Your task to perform on an android device: Open Google Chrome and click the shortcut for Amazon.com Image 0: 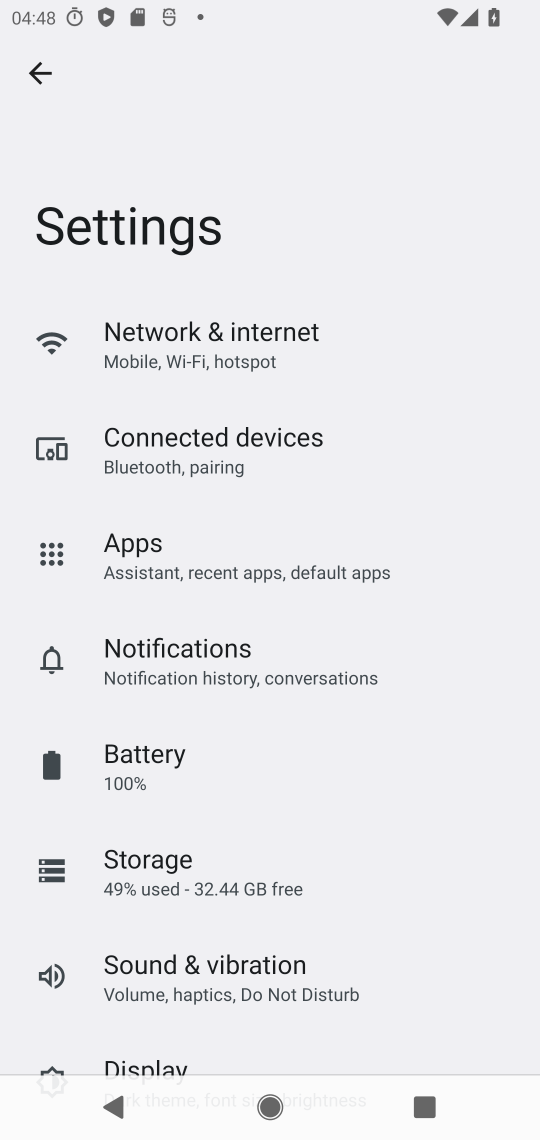
Step 0: press home button
Your task to perform on an android device: Open Google Chrome and click the shortcut for Amazon.com Image 1: 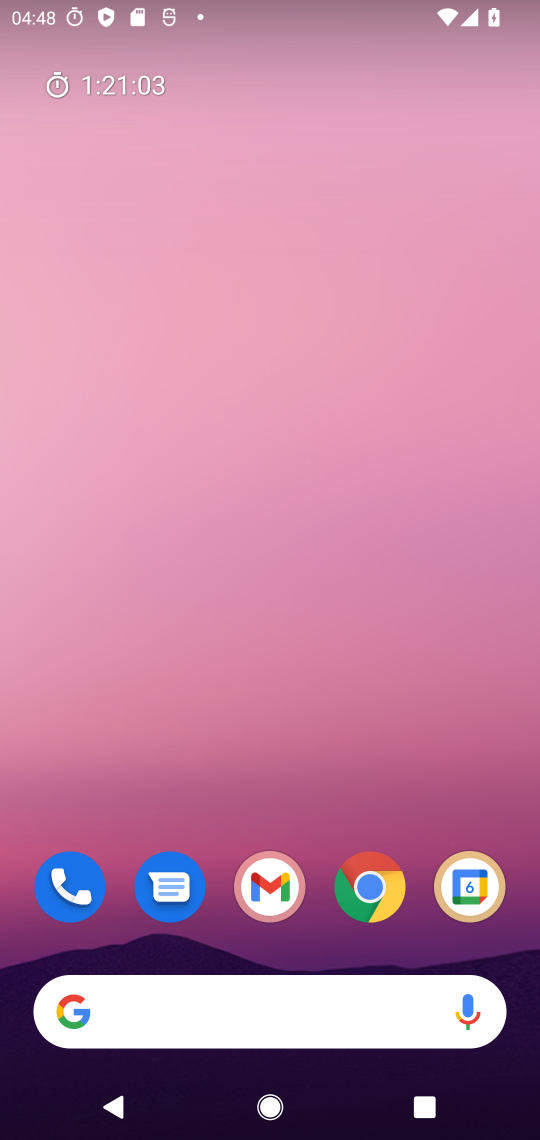
Step 1: drag from (446, 792) to (484, 324)
Your task to perform on an android device: Open Google Chrome and click the shortcut for Amazon.com Image 2: 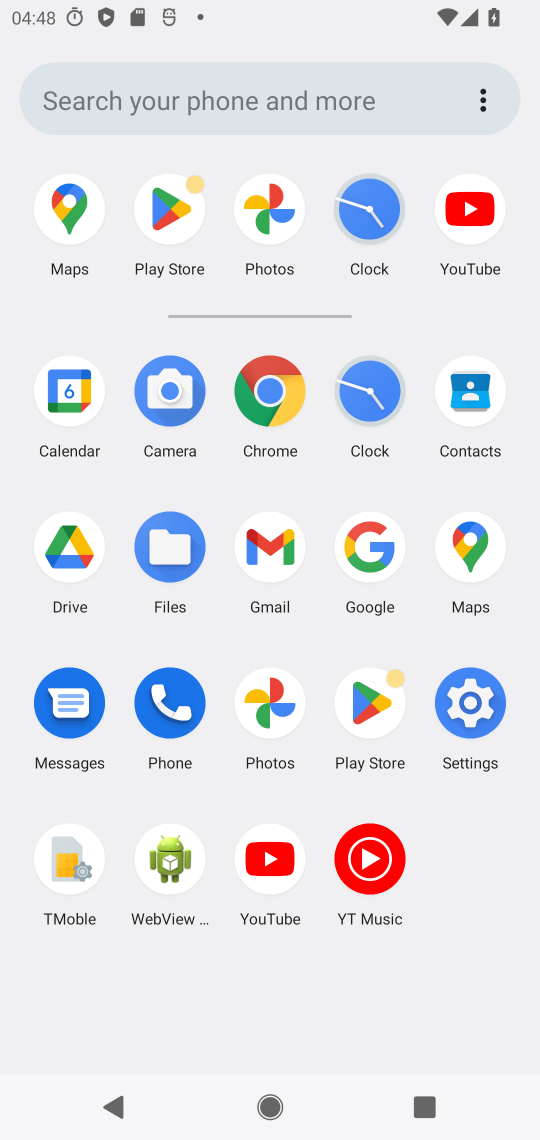
Step 2: click (289, 383)
Your task to perform on an android device: Open Google Chrome and click the shortcut for Amazon.com Image 3: 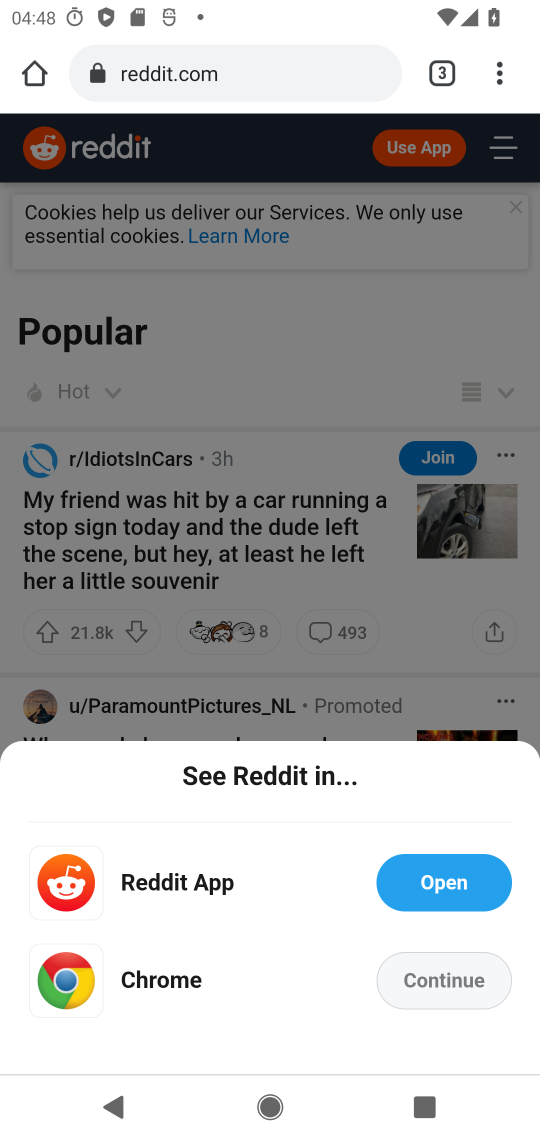
Step 3: press back button
Your task to perform on an android device: Open Google Chrome and click the shortcut for Amazon.com Image 4: 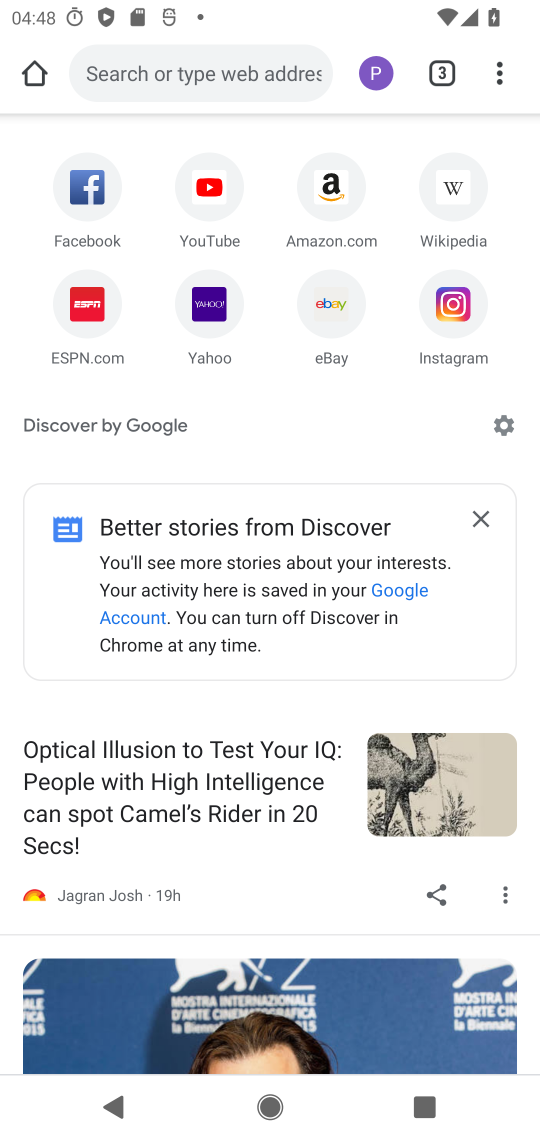
Step 4: click (315, 177)
Your task to perform on an android device: Open Google Chrome and click the shortcut for Amazon.com Image 5: 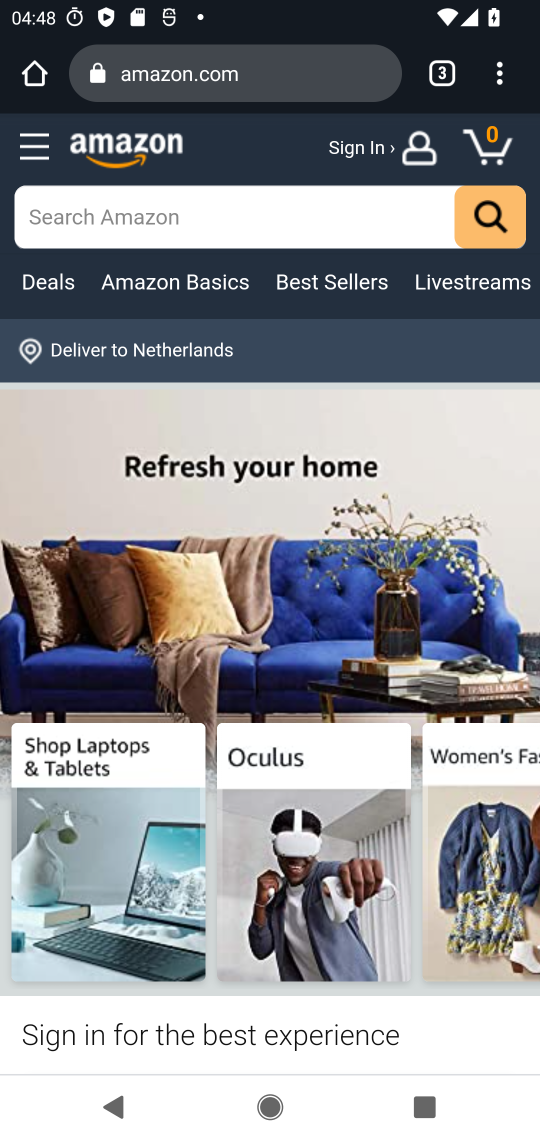
Step 5: task complete